Your task to perform on an android device: allow cookies in the chrome app Image 0: 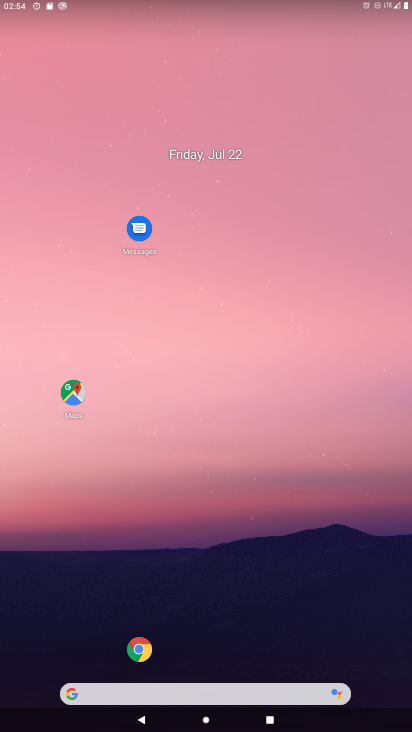
Step 0: click (132, 655)
Your task to perform on an android device: allow cookies in the chrome app Image 1: 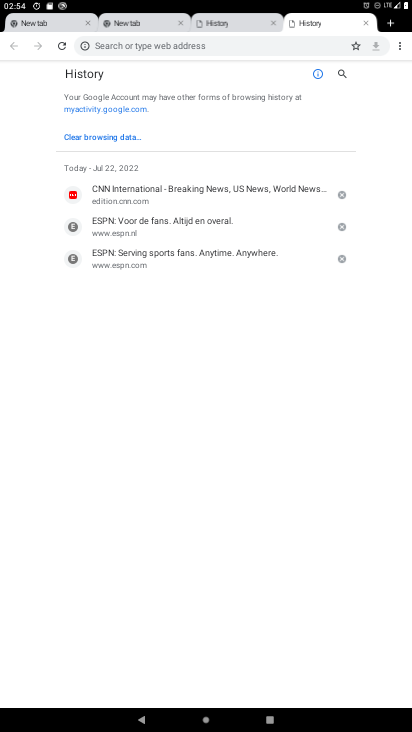
Step 1: click (396, 43)
Your task to perform on an android device: allow cookies in the chrome app Image 2: 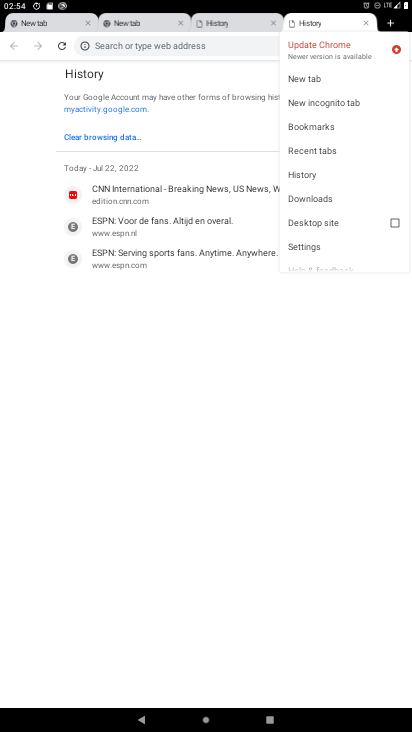
Step 2: click (299, 244)
Your task to perform on an android device: allow cookies in the chrome app Image 3: 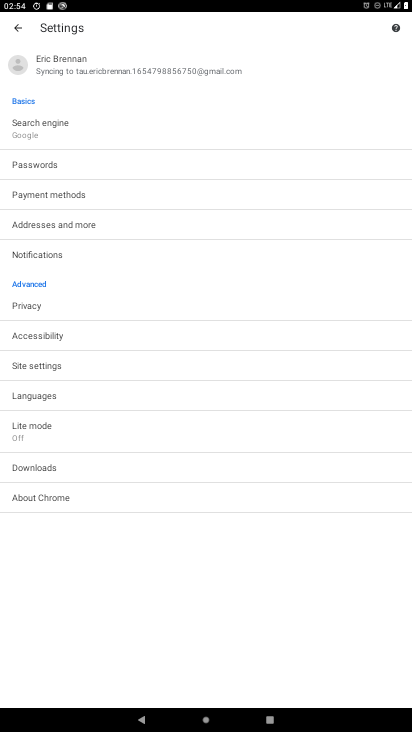
Step 3: click (24, 367)
Your task to perform on an android device: allow cookies in the chrome app Image 4: 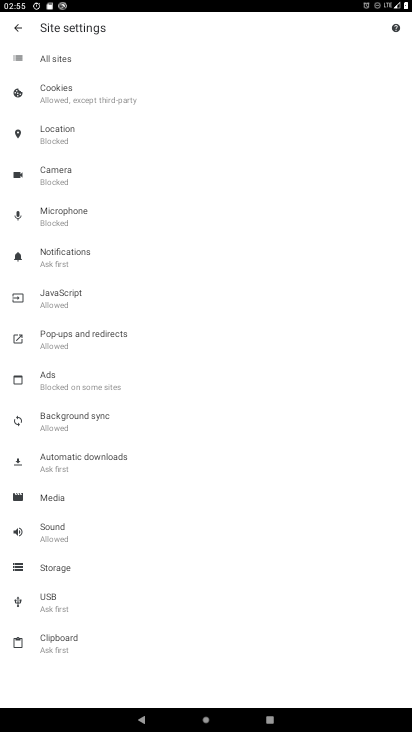
Step 4: click (82, 96)
Your task to perform on an android device: allow cookies in the chrome app Image 5: 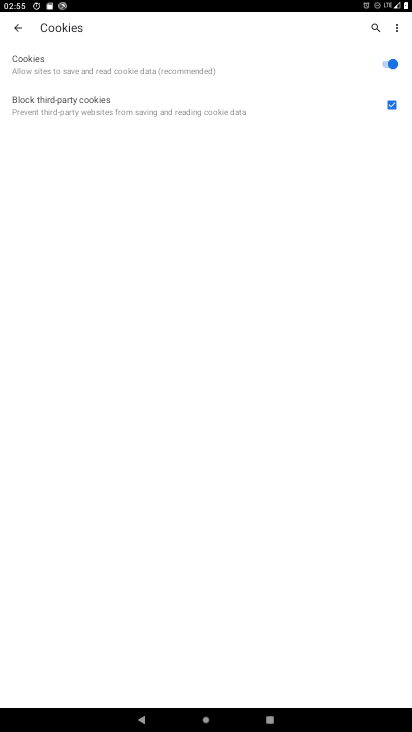
Step 5: task complete